Your task to perform on an android device: open app "Messenger Lite" (install if not already installed) and enter user name: "cataclysmic@outlook.com" and password: "victoriously" Image 0: 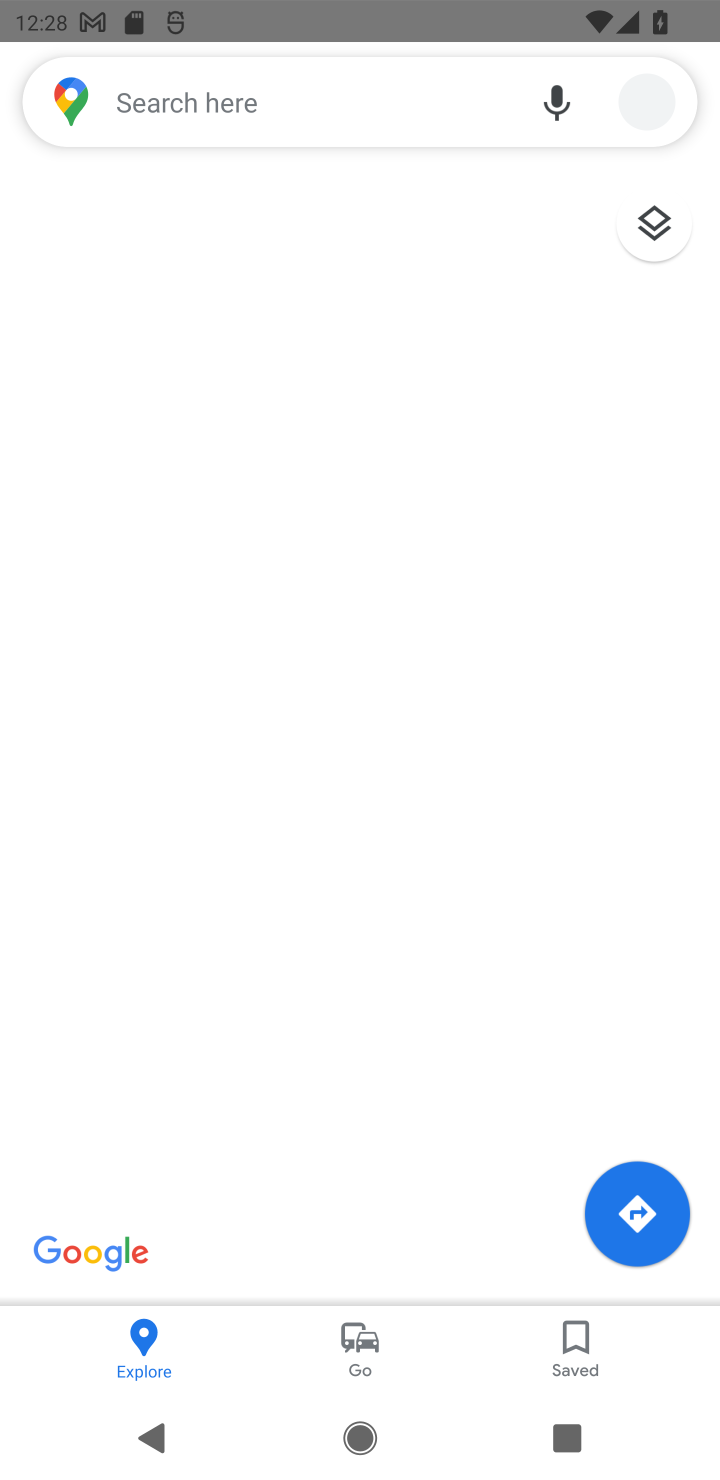
Step 0: press home button
Your task to perform on an android device: open app "Messenger Lite" (install if not already installed) and enter user name: "cataclysmic@outlook.com" and password: "victoriously" Image 1: 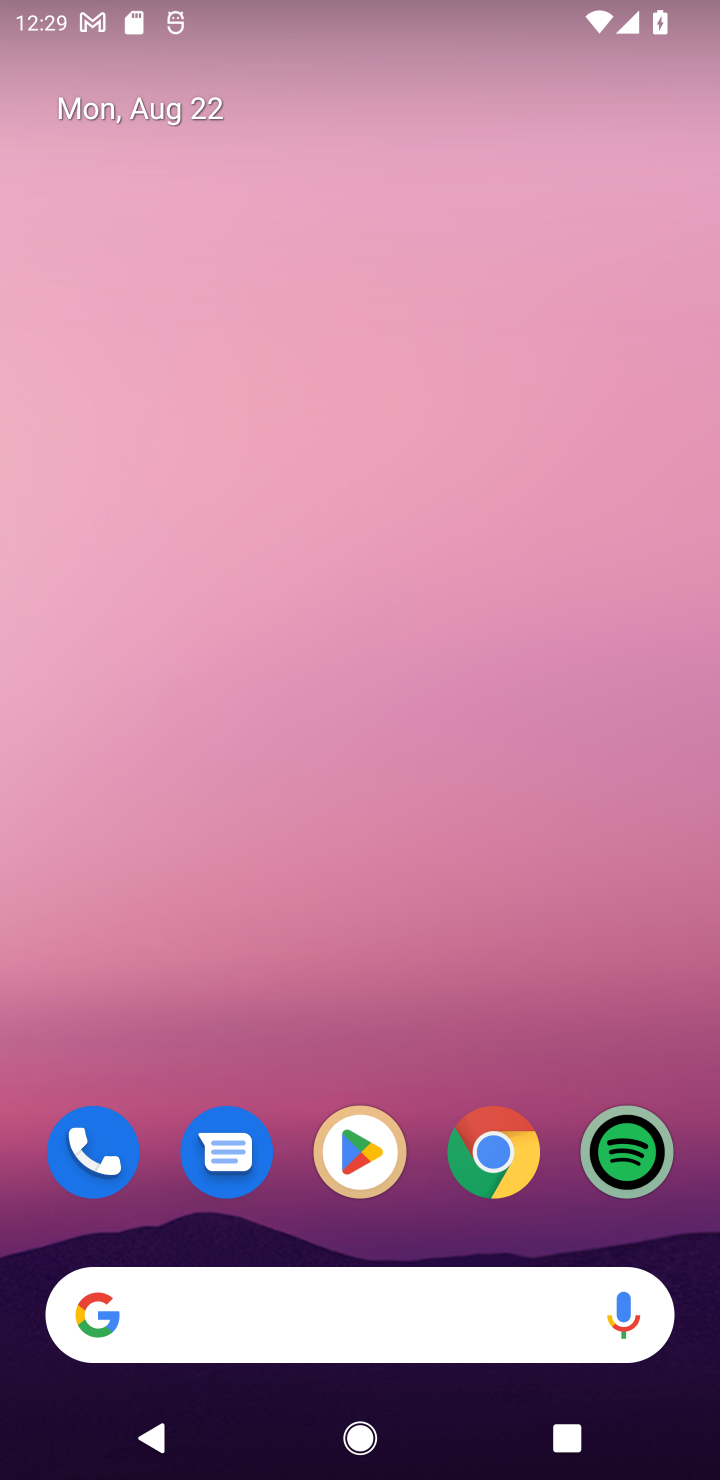
Step 1: click (326, 1145)
Your task to perform on an android device: open app "Messenger Lite" (install if not already installed) and enter user name: "cataclysmic@outlook.com" and password: "victoriously" Image 2: 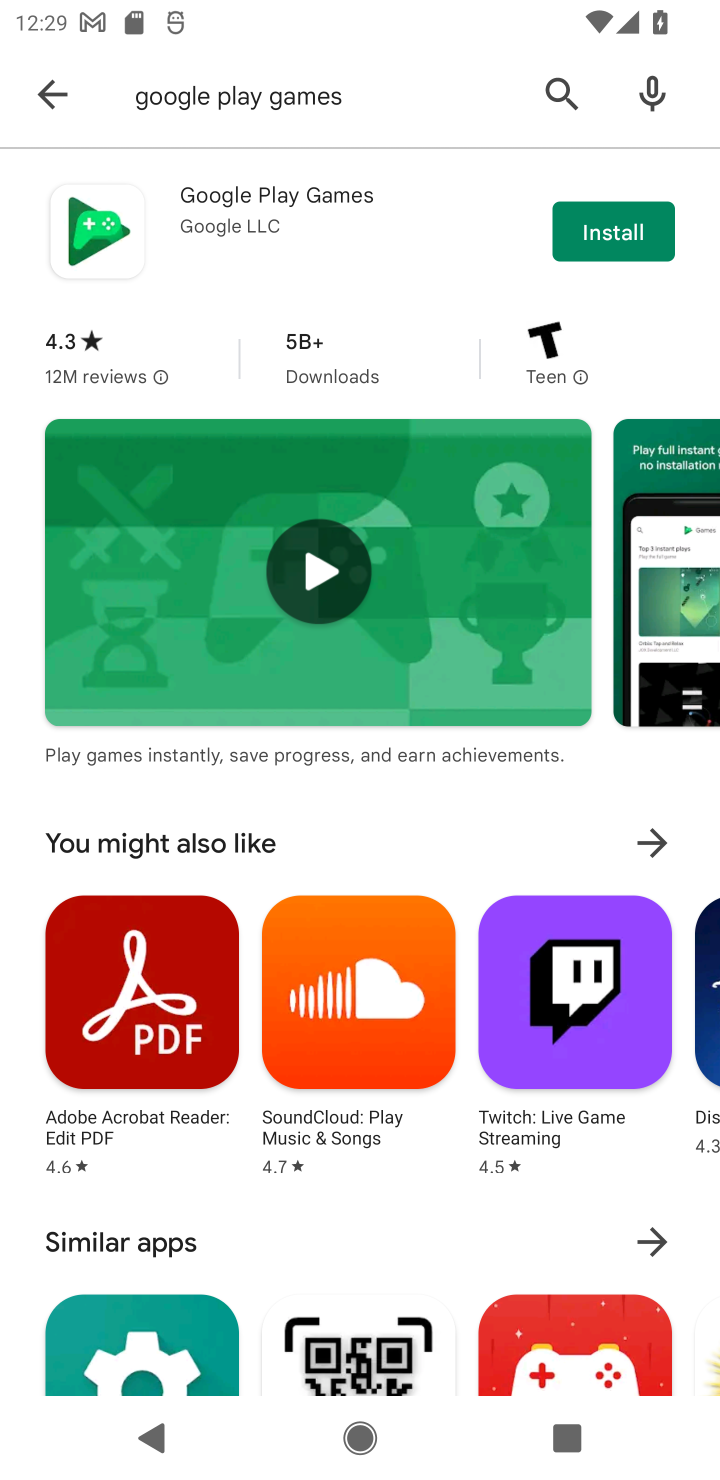
Step 2: click (42, 87)
Your task to perform on an android device: open app "Messenger Lite" (install if not already installed) and enter user name: "cataclysmic@outlook.com" and password: "victoriously" Image 3: 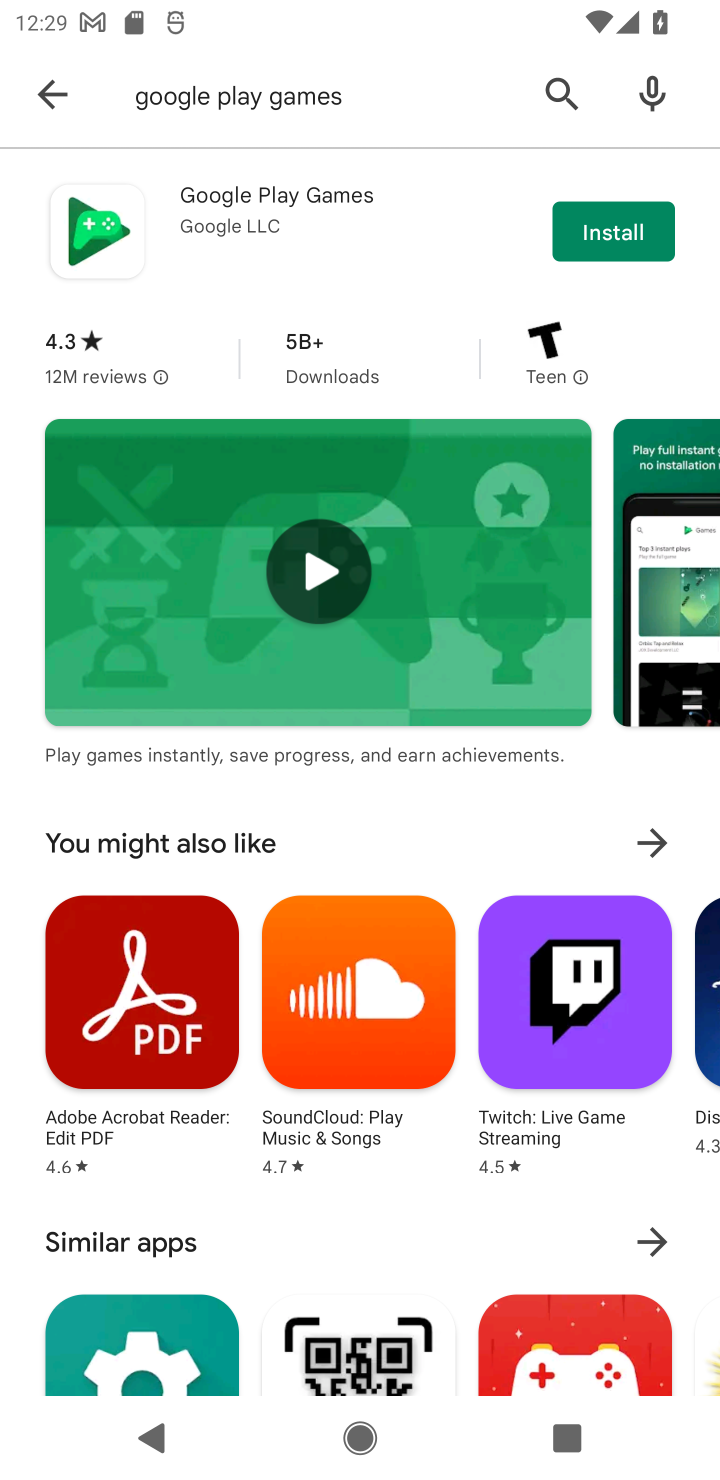
Step 3: click (63, 107)
Your task to perform on an android device: open app "Messenger Lite" (install if not already installed) and enter user name: "cataclysmic@outlook.com" and password: "victoriously" Image 4: 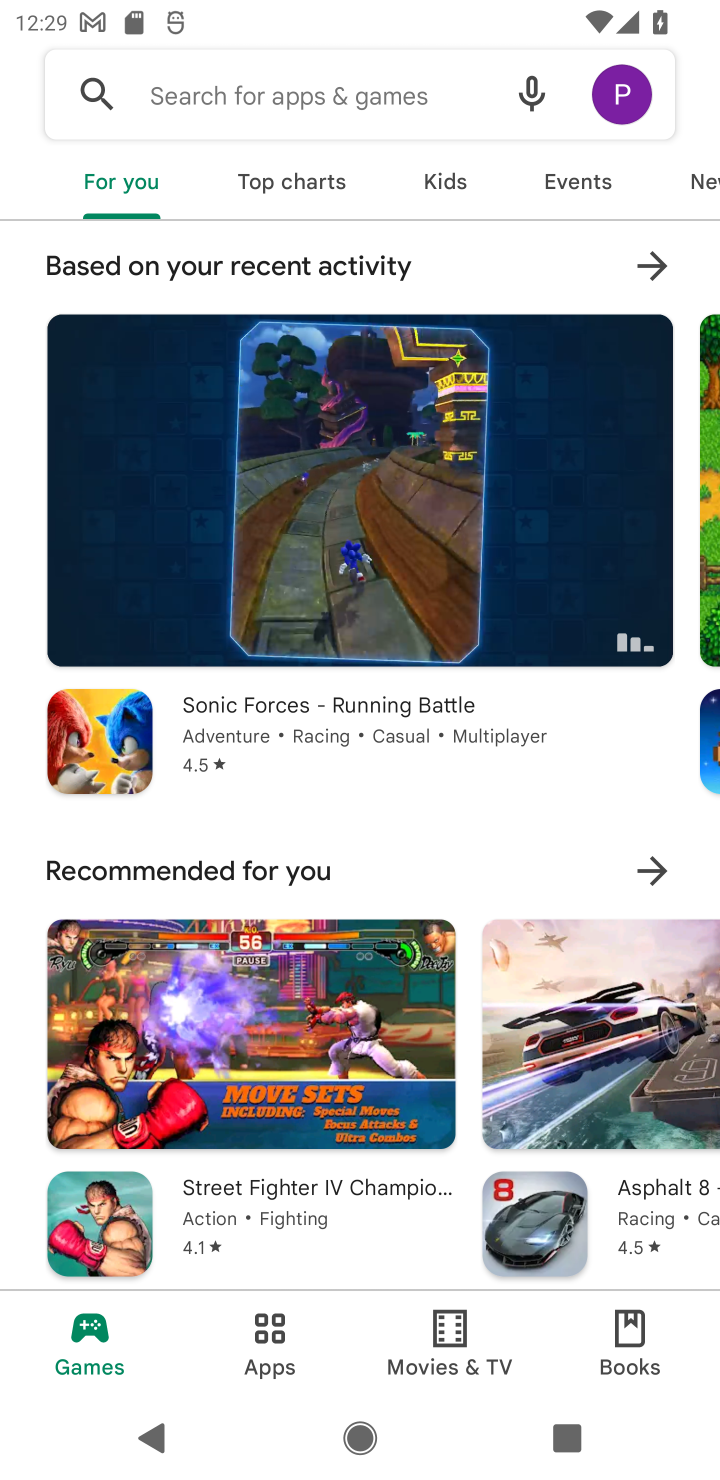
Step 4: click (276, 95)
Your task to perform on an android device: open app "Messenger Lite" (install if not already installed) and enter user name: "cataclysmic@outlook.com" and password: "victoriously" Image 5: 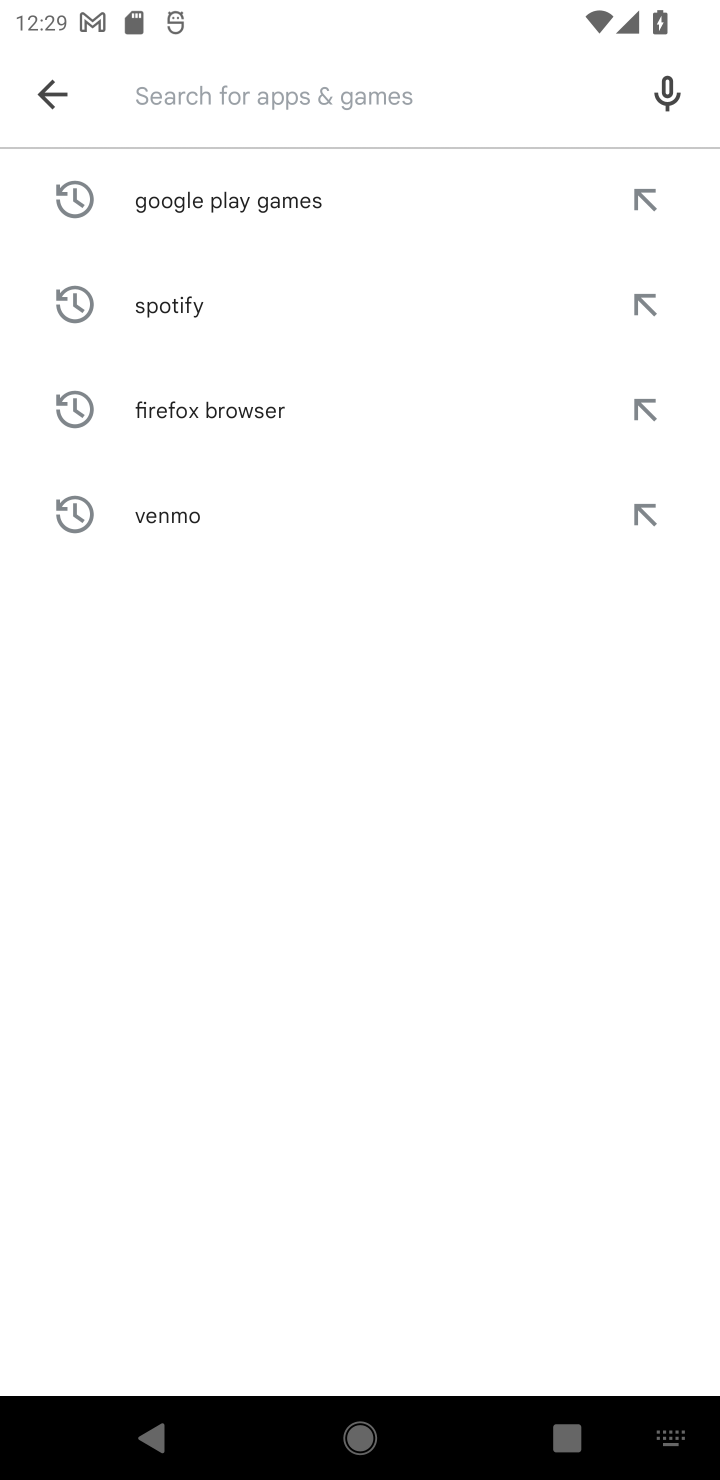
Step 5: type "Messenger Lite"
Your task to perform on an android device: open app "Messenger Lite" (install if not already installed) and enter user name: "cataclysmic@outlook.com" and password: "victoriously" Image 6: 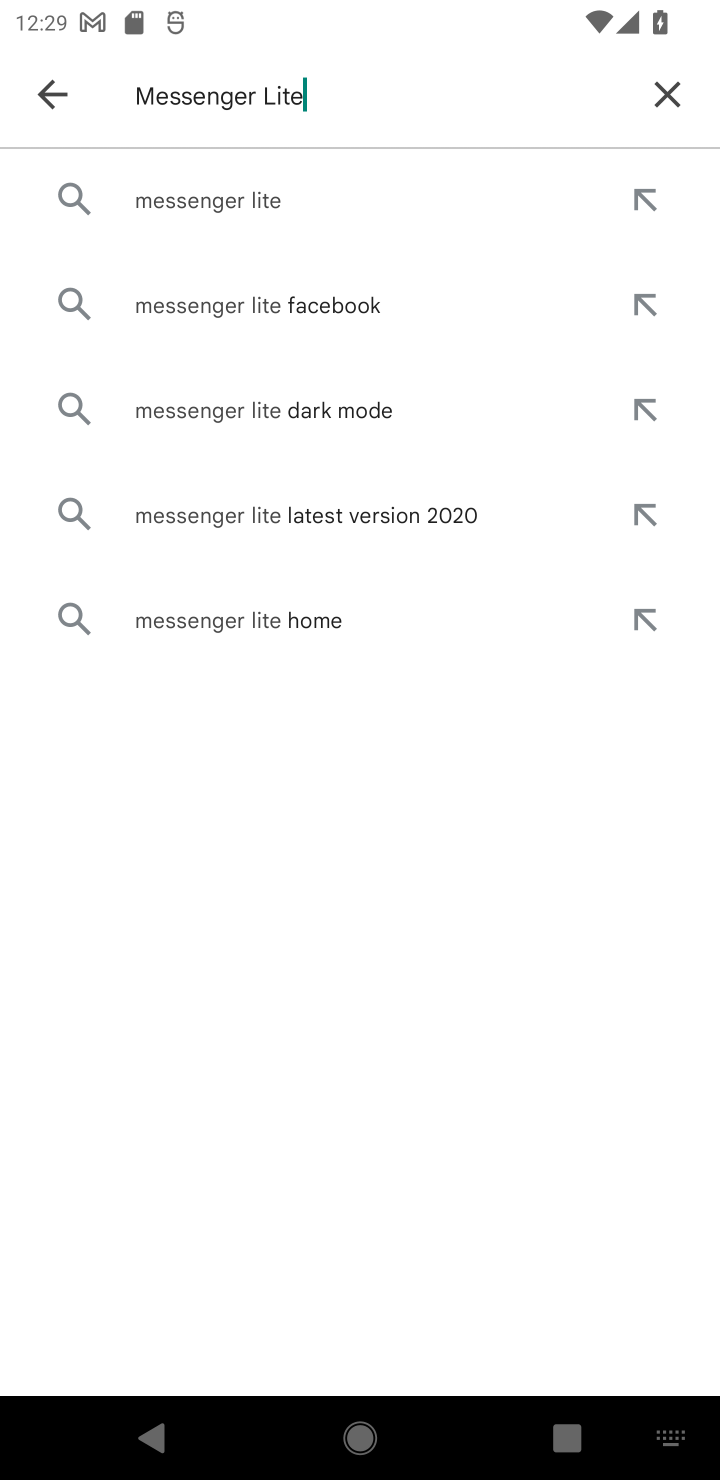
Step 6: click (241, 198)
Your task to perform on an android device: open app "Messenger Lite" (install if not already installed) and enter user name: "cataclysmic@outlook.com" and password: "victoriously" Image 7: 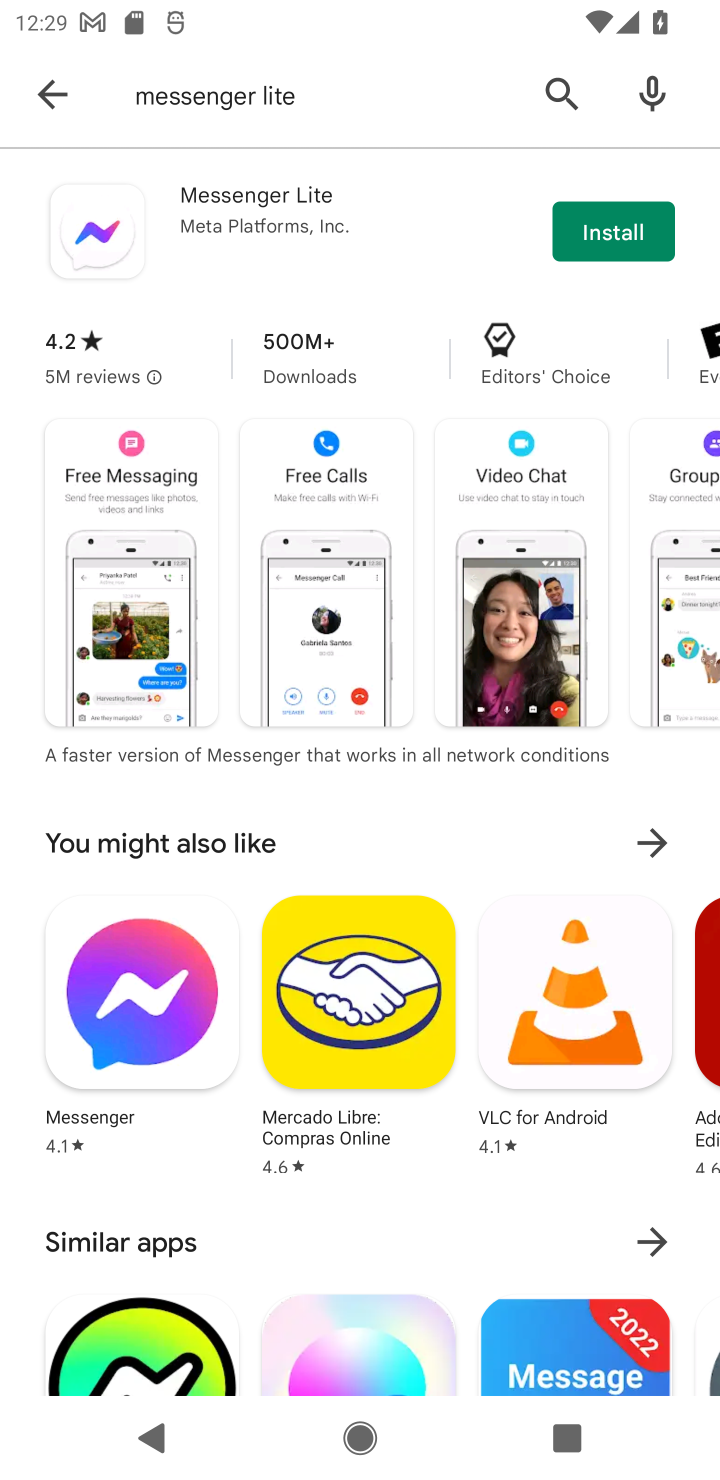
Step 7: click (601, 233)
Your task to perform on an android device: open app "Messenger Lite" (install if not already installed) and enter user name: "cataclysmic@outlook.com" and password: "victoriously" Image 8: 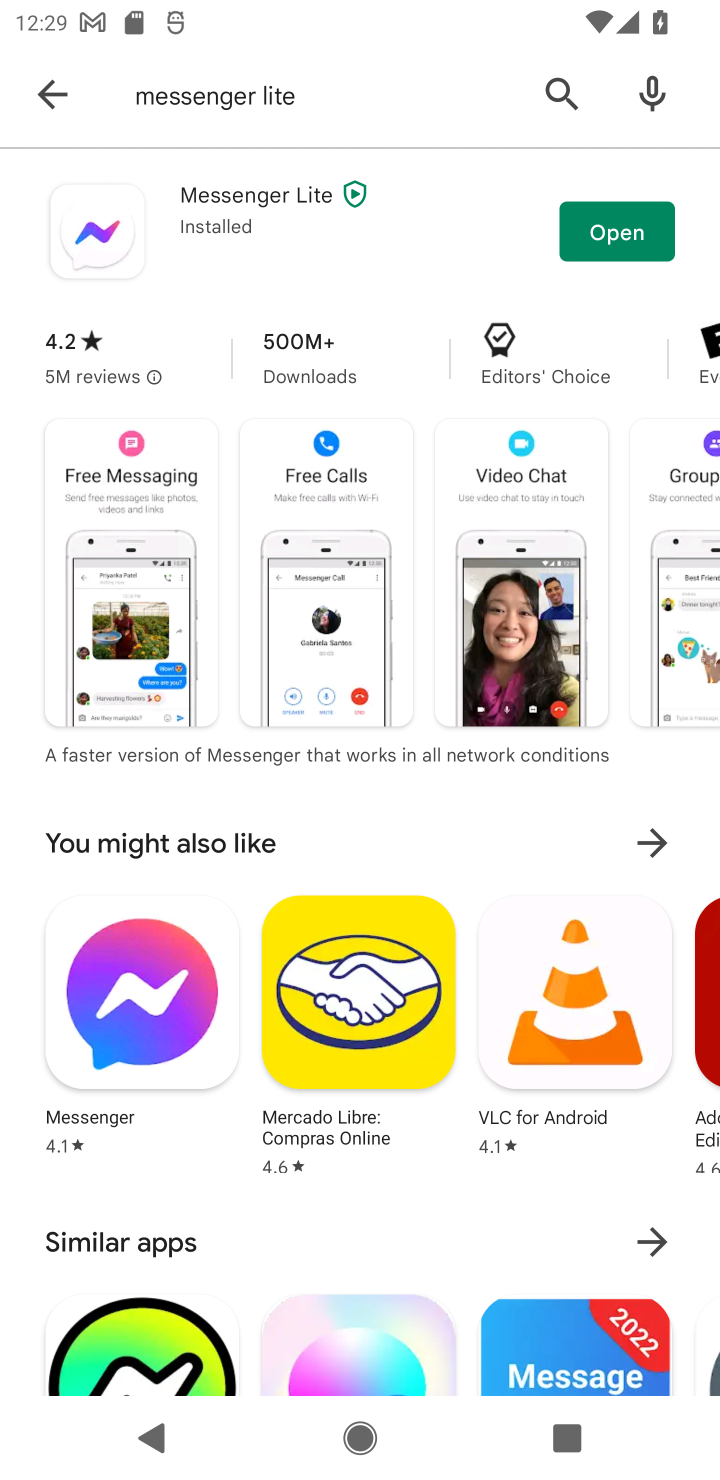
Step 8: click (594, 235)
Your task to perform on an android device: open app "Messenger Lite" (install if not already installed) and enter user name: "cataclysmic@outlook.com" and password: "victoriously" Image 9: 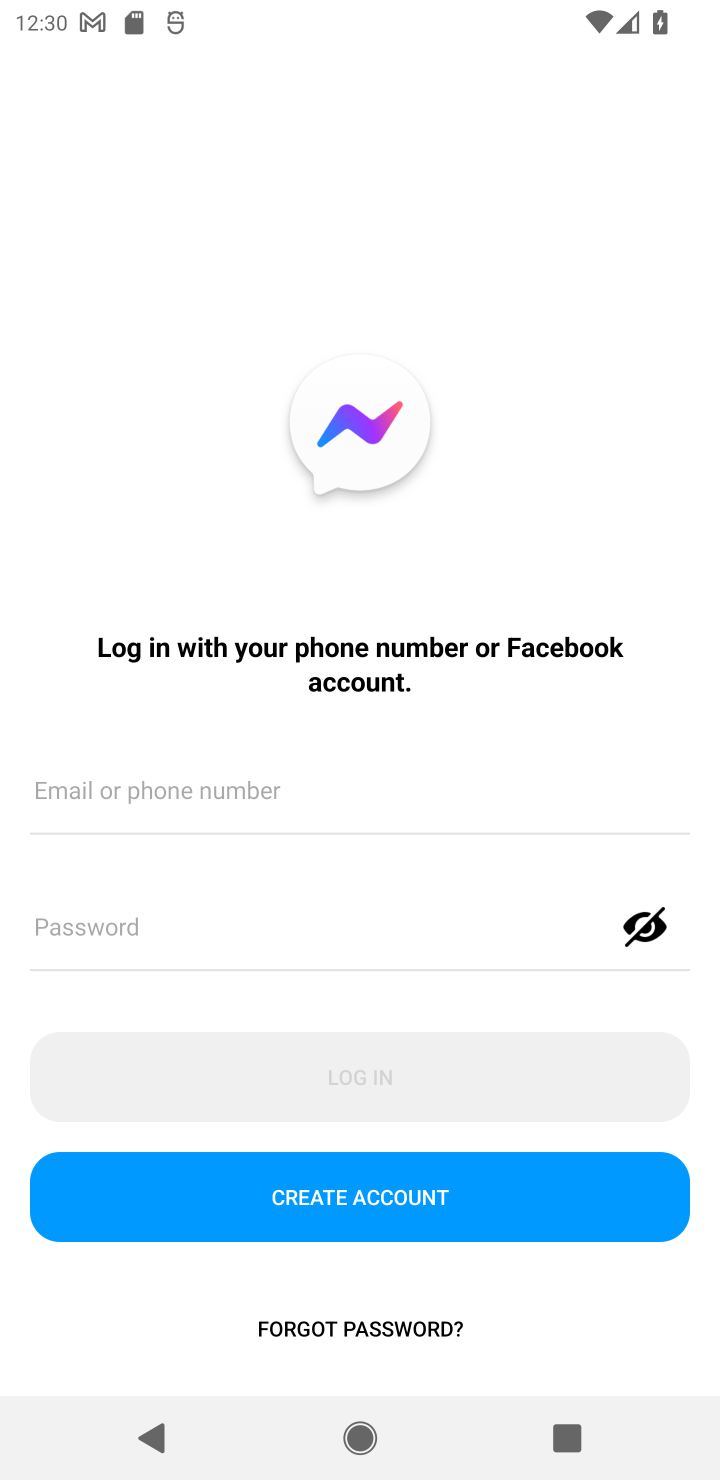
Step 9: click (258, 785)
Your task to perform on an android device: open app "Messenger Lite" (install if not already installed) and enter user name: "cataclysmic@outlook.com" and password: "victoriously" Image 10: 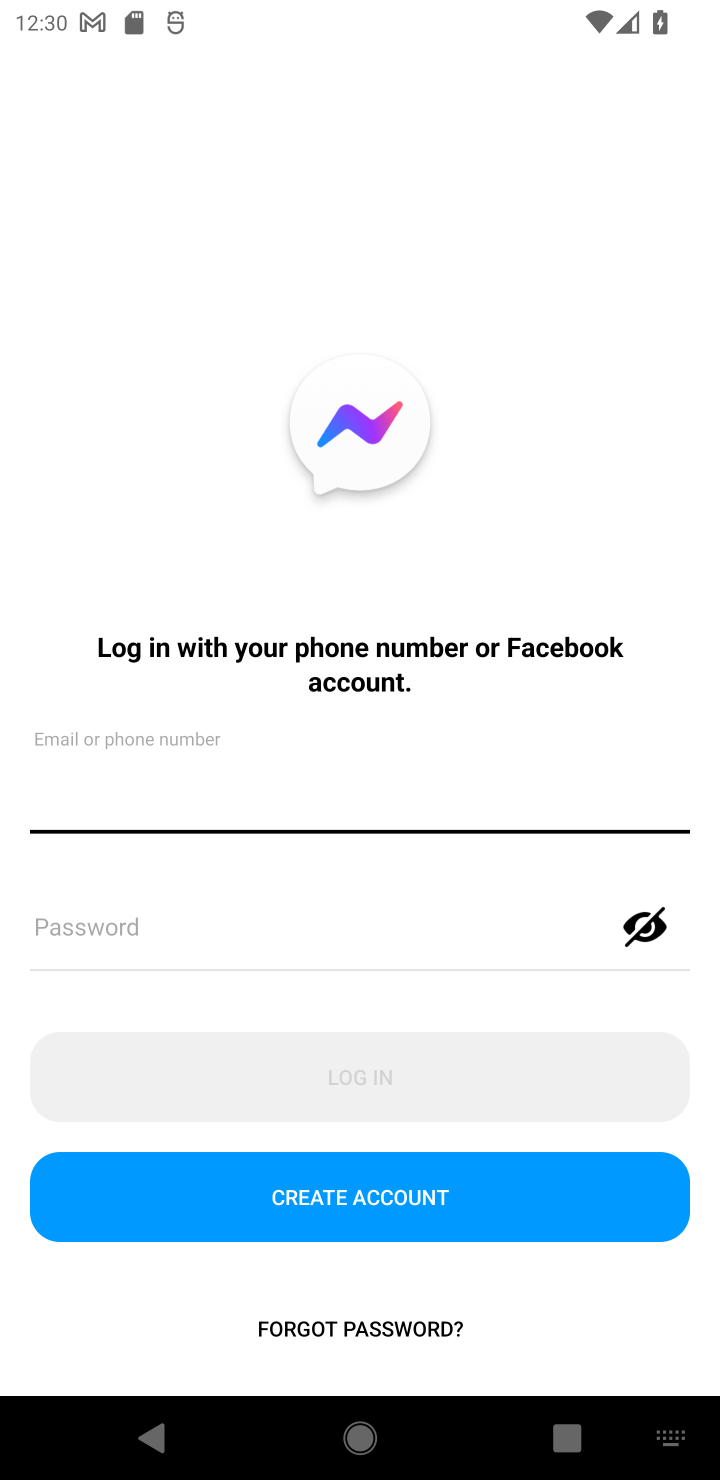
Step 10: type "cataclysmic@outlook.com"
Your task to perform on an android device: open app "Messenger Lite" (install if not already installed) and enter user name: "cataclysmic@outlook.com" and password: "victoriously" Image 11: 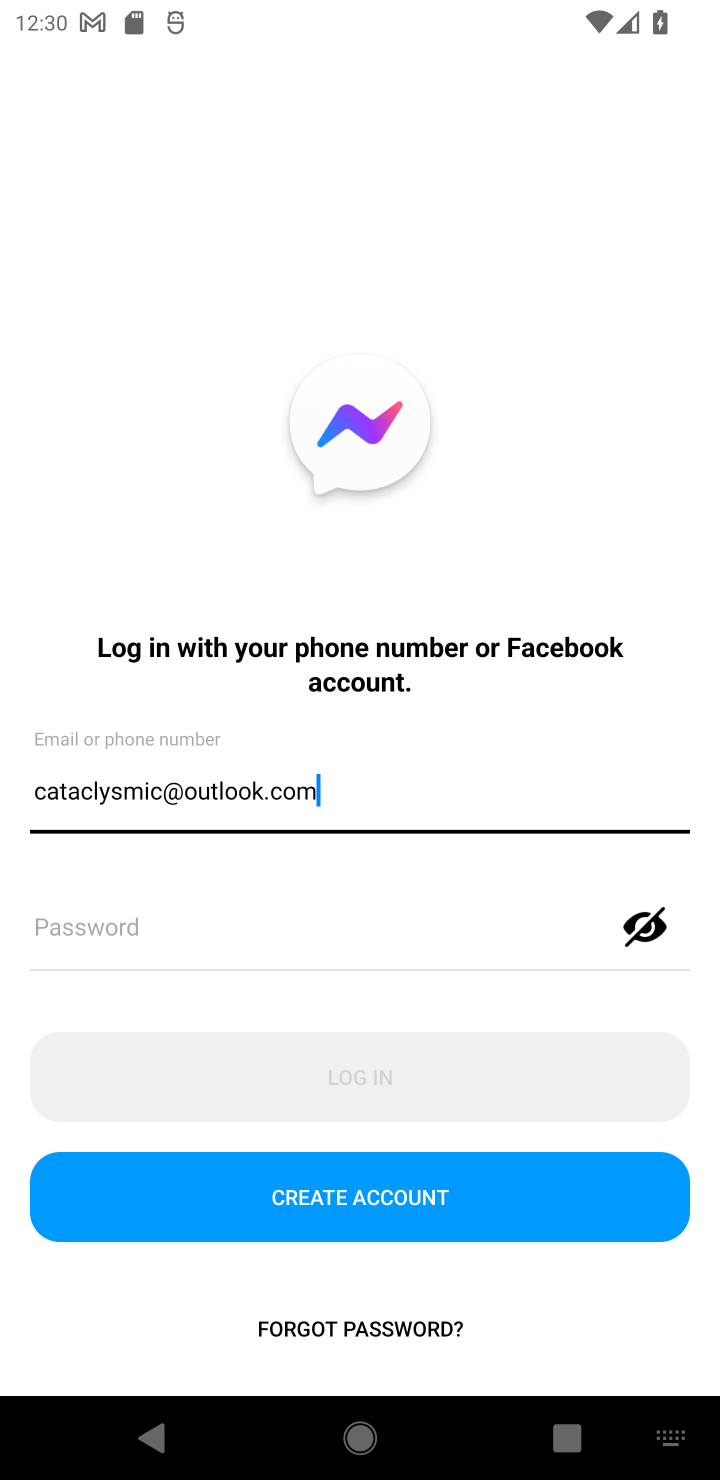
Step 11: click (184, 905)
Your task to perform on an android device: open app "Messenger Lite" (install if not already installed) and enter user name: "cataclysmic@outlook.com" and password: "victoriously" Image 12: 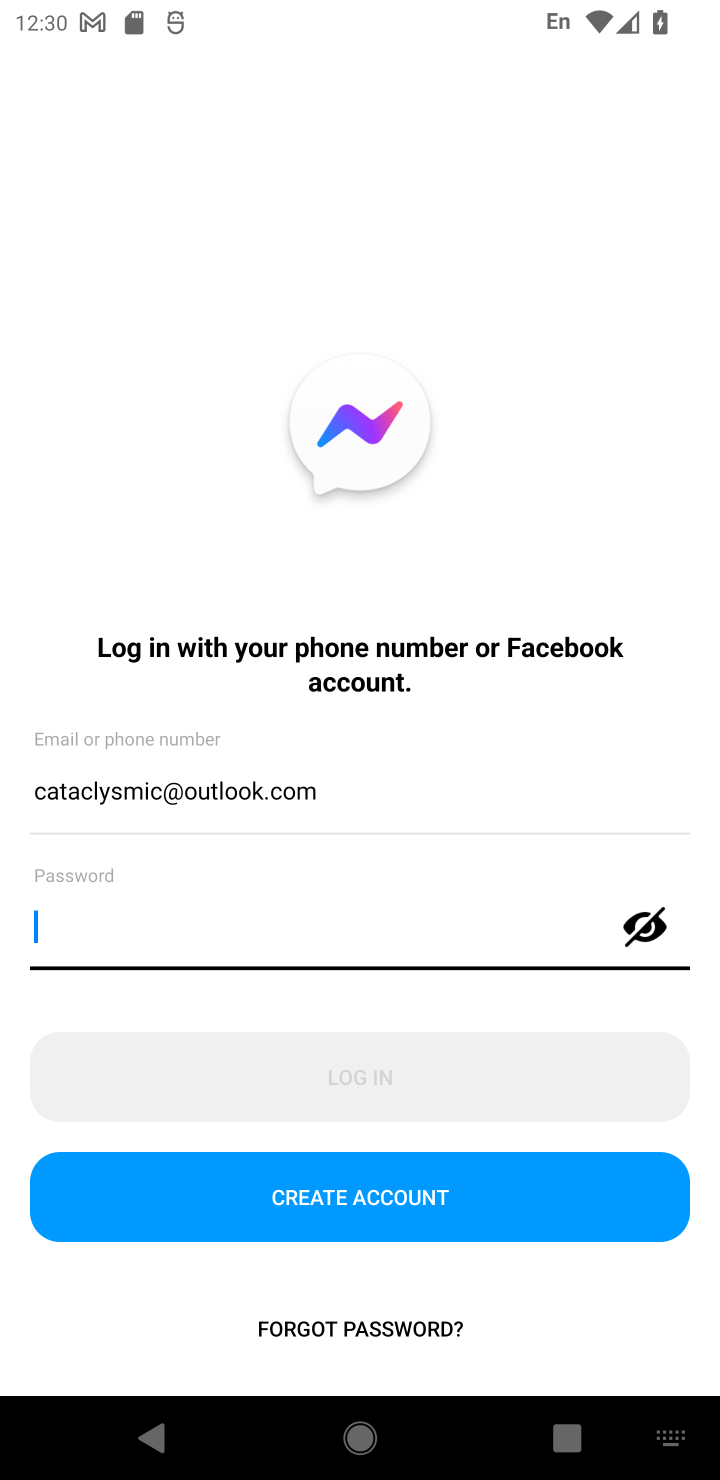
Step 12: type "victoriously"
Your task to perform on an android device: open app "Messenger Lite" (install if not already installed) and enter user name: "cataclysmic@outlook.com" and password: "victoriously" Image 13: 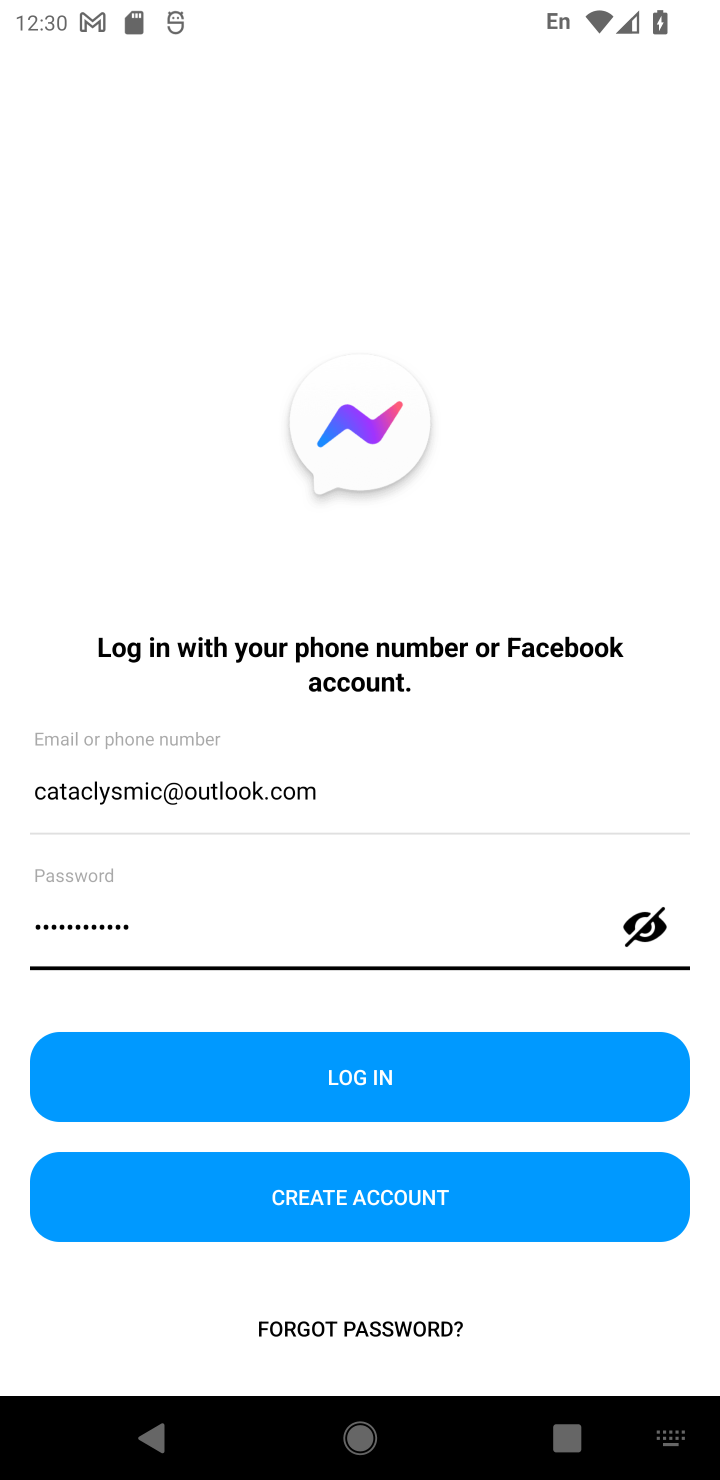
Step 13: task complete